Your task to perform on an android device: Open Google Maps and go to "Timeline" Image 0: 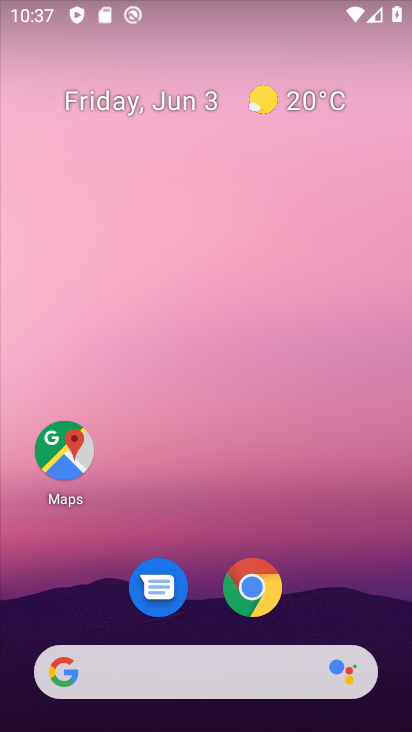
Step 0: click (62, 440)
Your task to perform on an android device: Open Google Maps and go to "Timeline" Image 1: 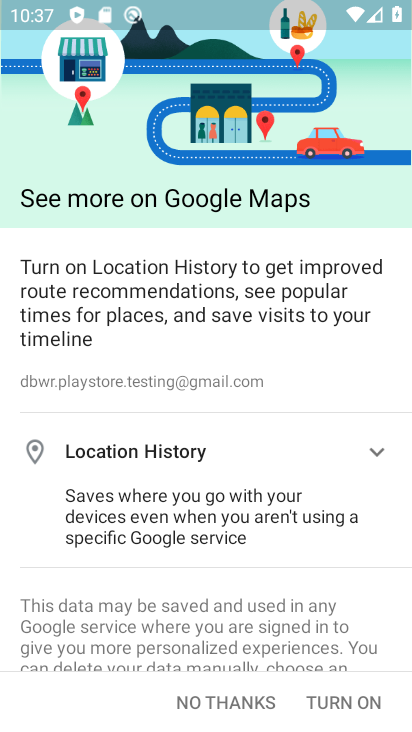
Step 1: click (255, 703)
Your task to perform on an android device: Open Google Maps and go to "Timeline" Image 2: 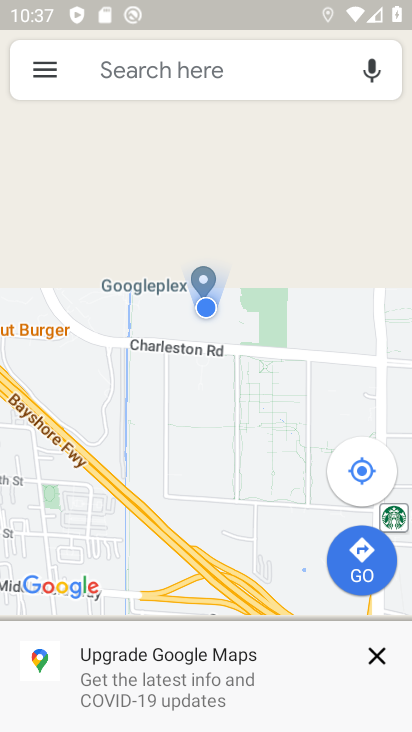
Step 2: click (41, 57)
Your task to perform on an android device: Open Google Maps and go to "Timeline" Image 3: 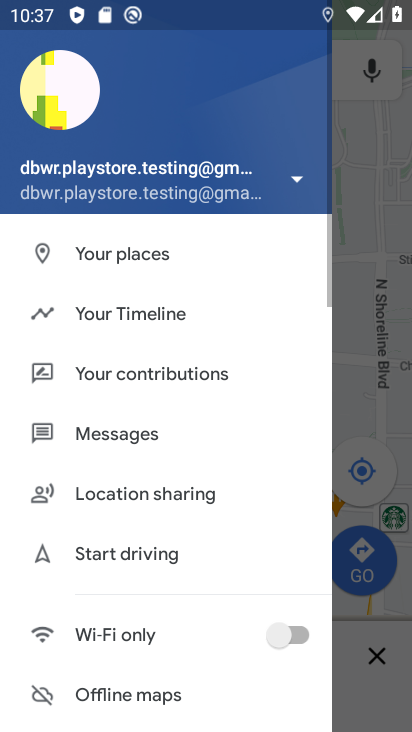
Step 3: click (137, 323)
Your task to perform on an android device: Open Google Maps and go to "Timeline" Image 4: 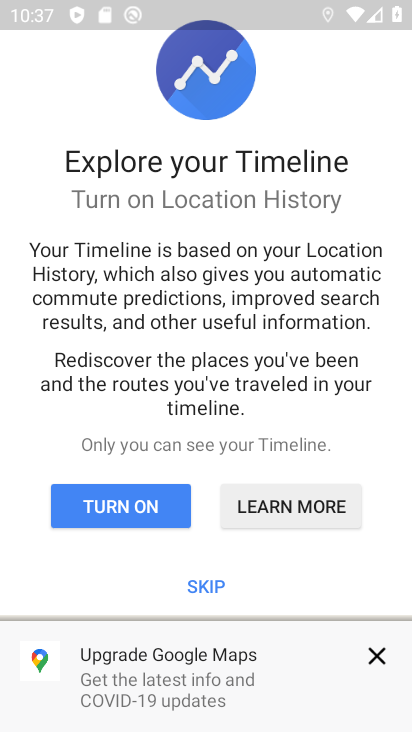
Step 4: click (211, 580)
Your task to perform on an android device: Open Google Maps and go to "Timeline" Image 5: 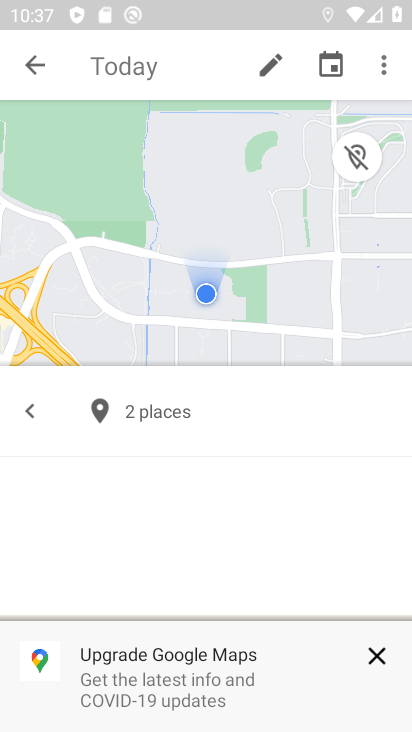
Step 5: task complete